Your task to perform on an android device: Turn off the flashlight Image 0: 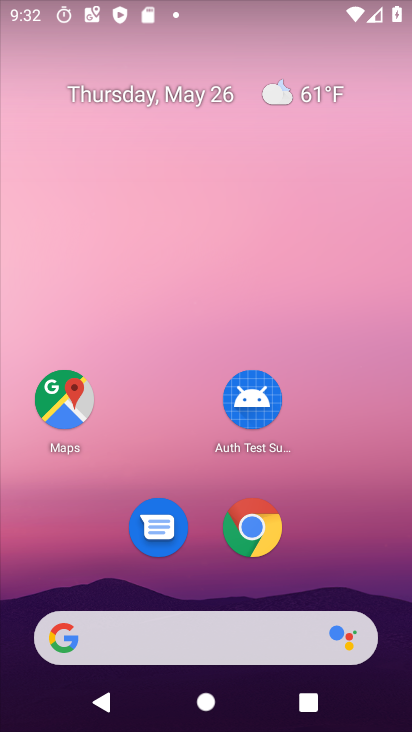
Step 0: drag from (376, 449) to (337, 6)
Your task to perform on an android device: Turn off the flashlight Image 1: 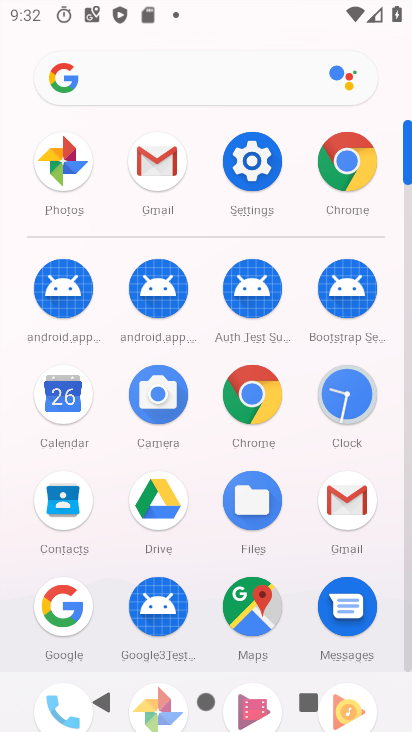
Step 1: click (254, 169)
Your task to perform on an android device: Turn off the flashlight Image 2: 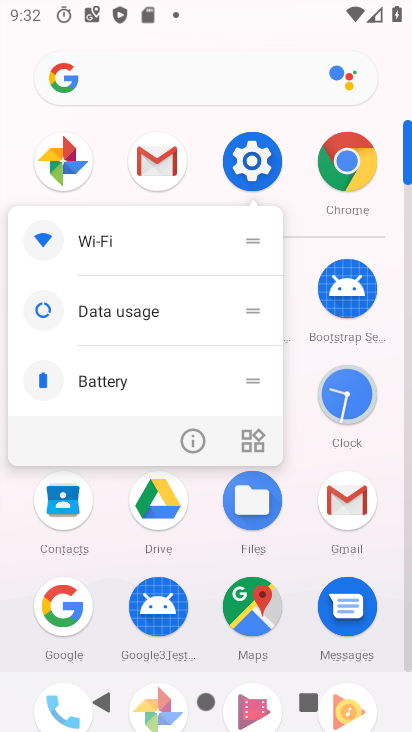
Step 2: click (254, 167)
Your task to perform on an android device: Turn off the flashlight Image 3: 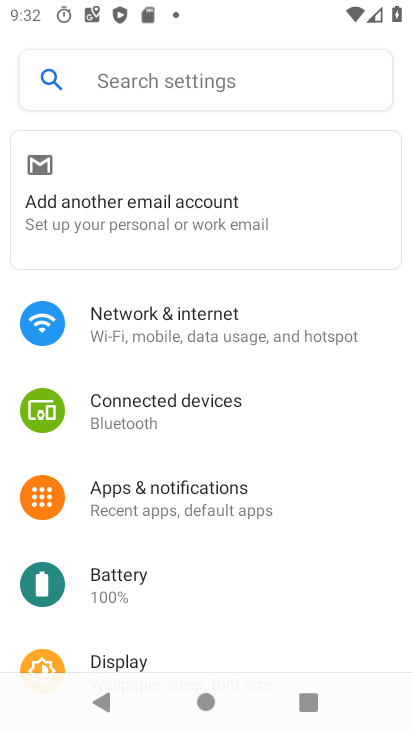
Step 3: task complete